Your task to perform on an android device: Open maps Image 0: 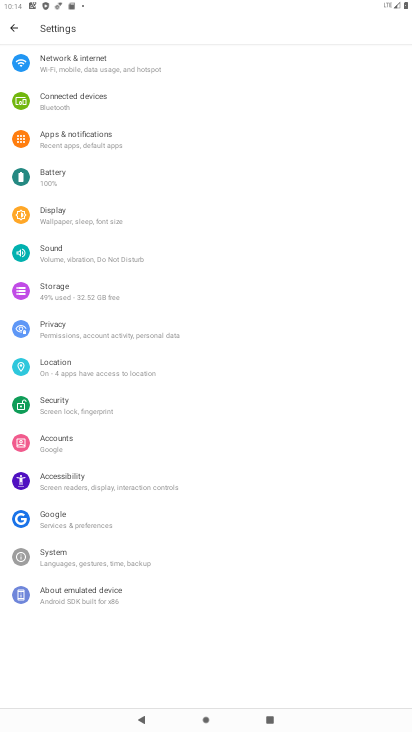
Step 0: press home button
Your task to perform on an android device: Open maps Image 1: 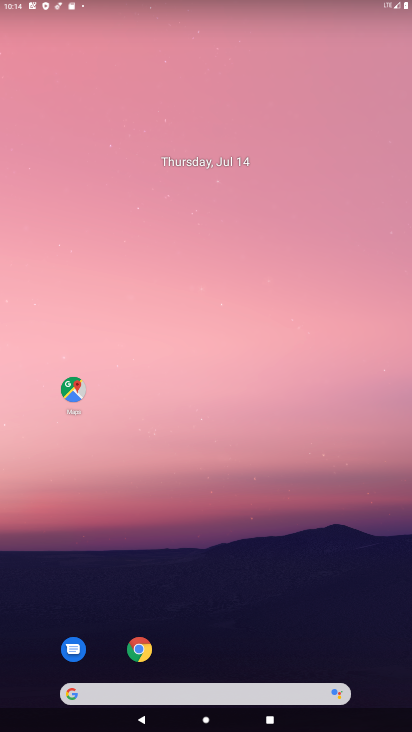
Step 1: click (69, 403)
Your task to perform on an android device: Open maps Image 2: 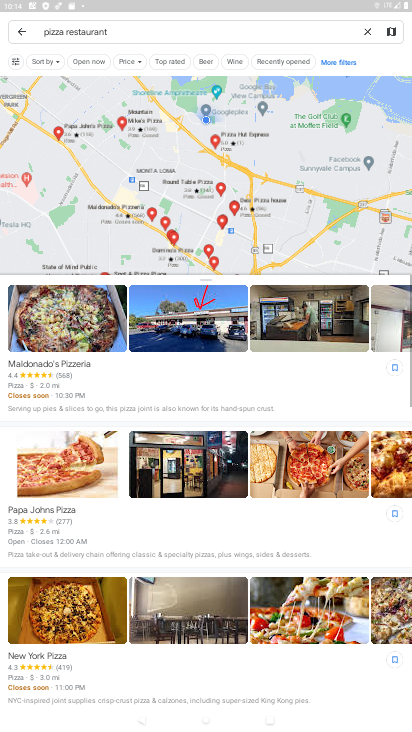
Step 2: task complete